Your task to perform on an android device: turn on showing notifications on the lock screen Image 0: 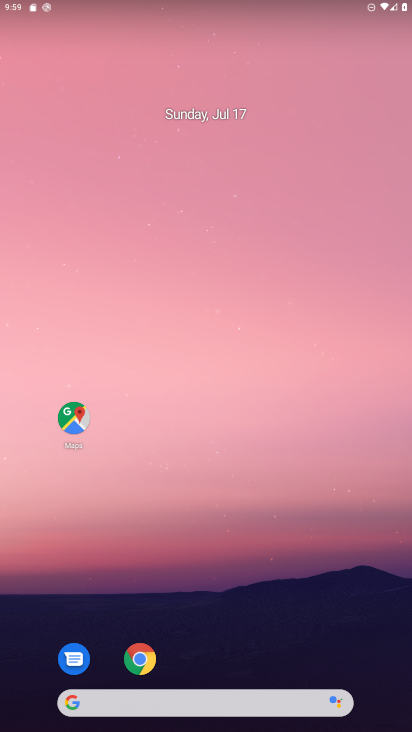
Step 0: drag from (277, 638) to (332, 10)
Your task to perform on an android device: turn on showing notifications on the lock screen Image 1: 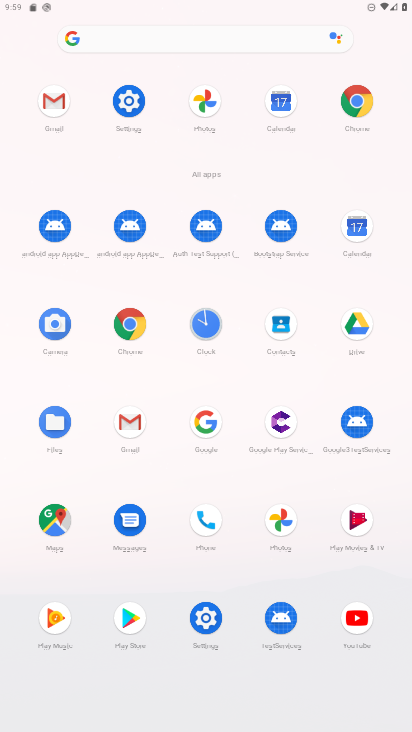
Step 1: click (124, 107)
Your task to perform on an android device: turn on showing notifications on the lock screen Image 2: 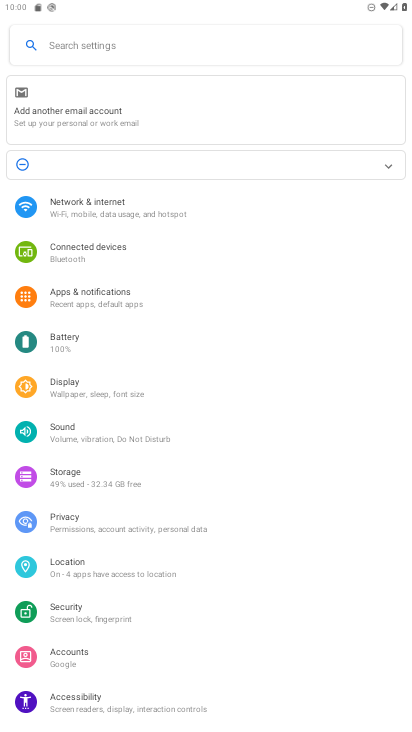
Step 2: click (122, 299)
Your task to perform on an android device: turn on showing notifications on the lock screen Image 3: 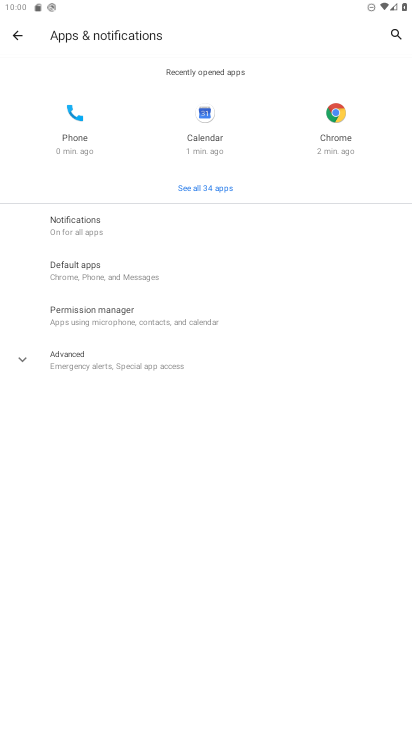
Step 3: click (90, 238)
Your task to perform on an android device: turn on showing notifications on the lock screen Image 4: 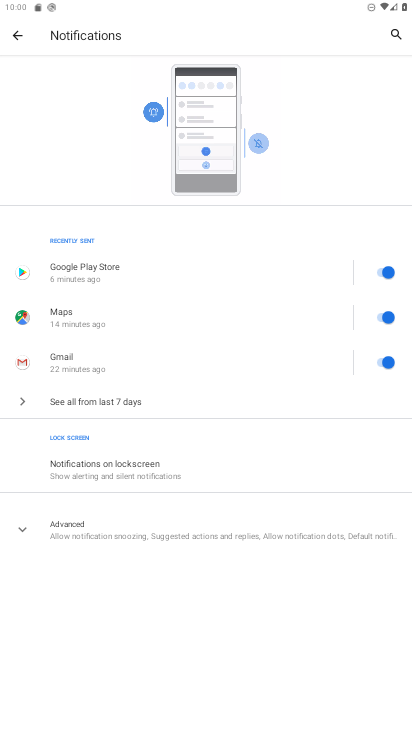
Step 4: click (100, 477)
Your task to perform on an android device: turn on showing notifications on the lock screen Image 5: 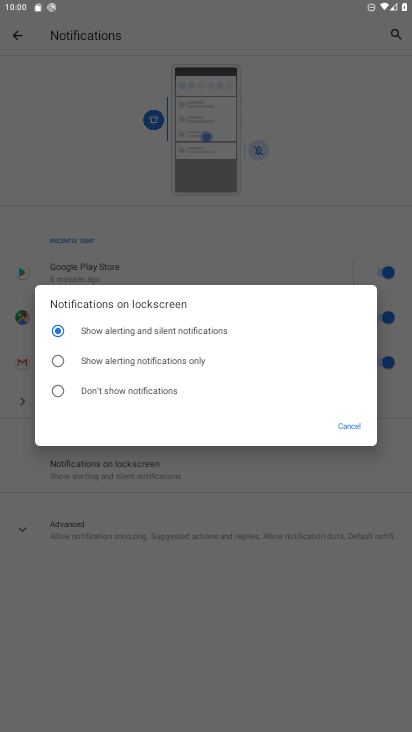
Step 5: click (142, 330)
Your task to perform on an android device: turn on showing notifications on the lock screen Image 6: 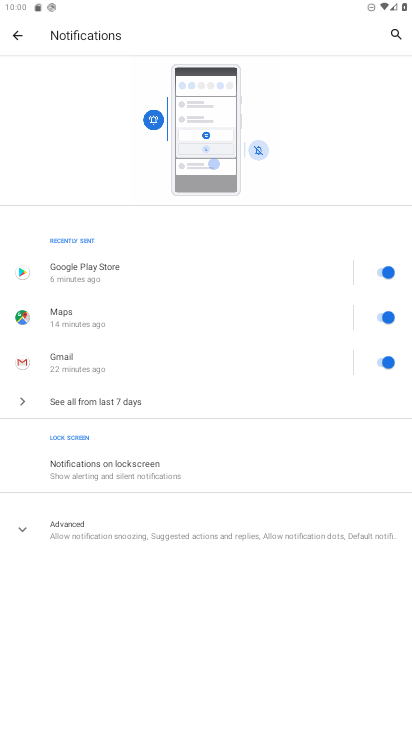
Step 6: task complete